Your task to perform on an android device: Open sound settings Image 0: 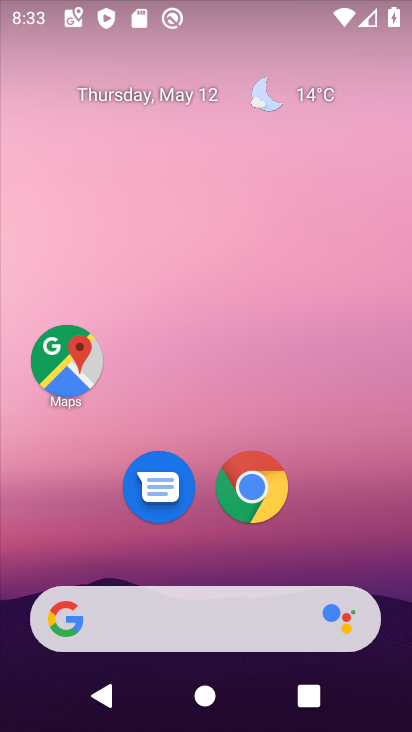
Step 0: drag from (378, 578) to (346, 19)
Your task to perform on an android device: Open sound settings Image 1: 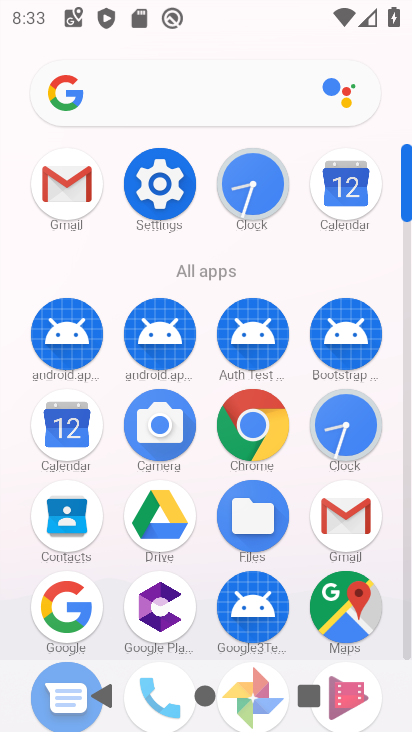
Step 1: click (150, 194)
Your task to perform on an android device: Open sound settings Image 2: 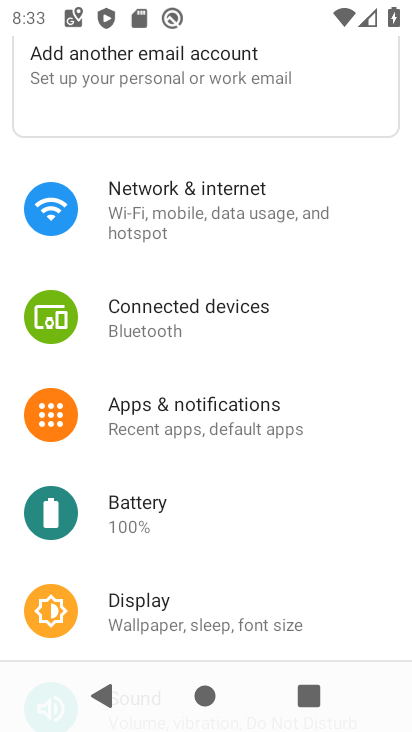
Step 2: drag from (216, 562) to (215, 217)
Your task to perform on an android device: Open sound settings Image 3: 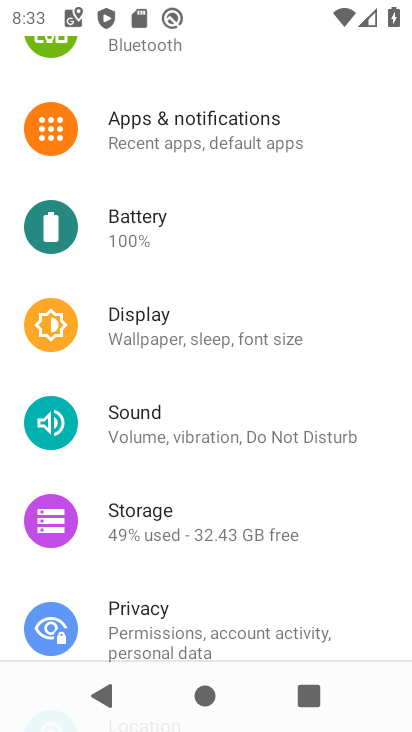
Step 3: click (139, 438)
Your task to perform on an android device: Open sound settings Image 4: 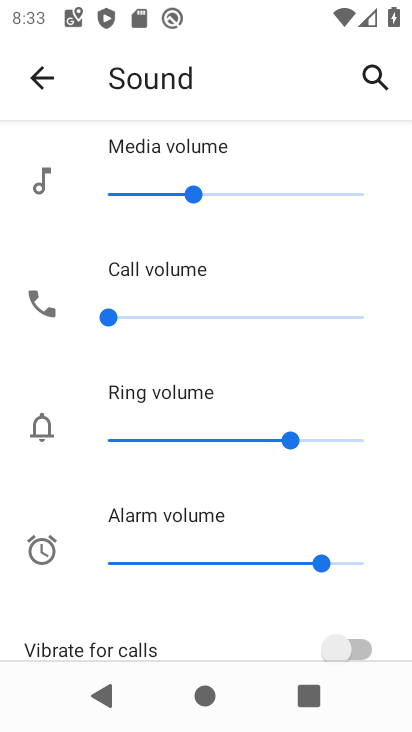
Step 4: task complete